Your task to perform on an android device: open app "Cash App" (install if not already installed) Image 0: 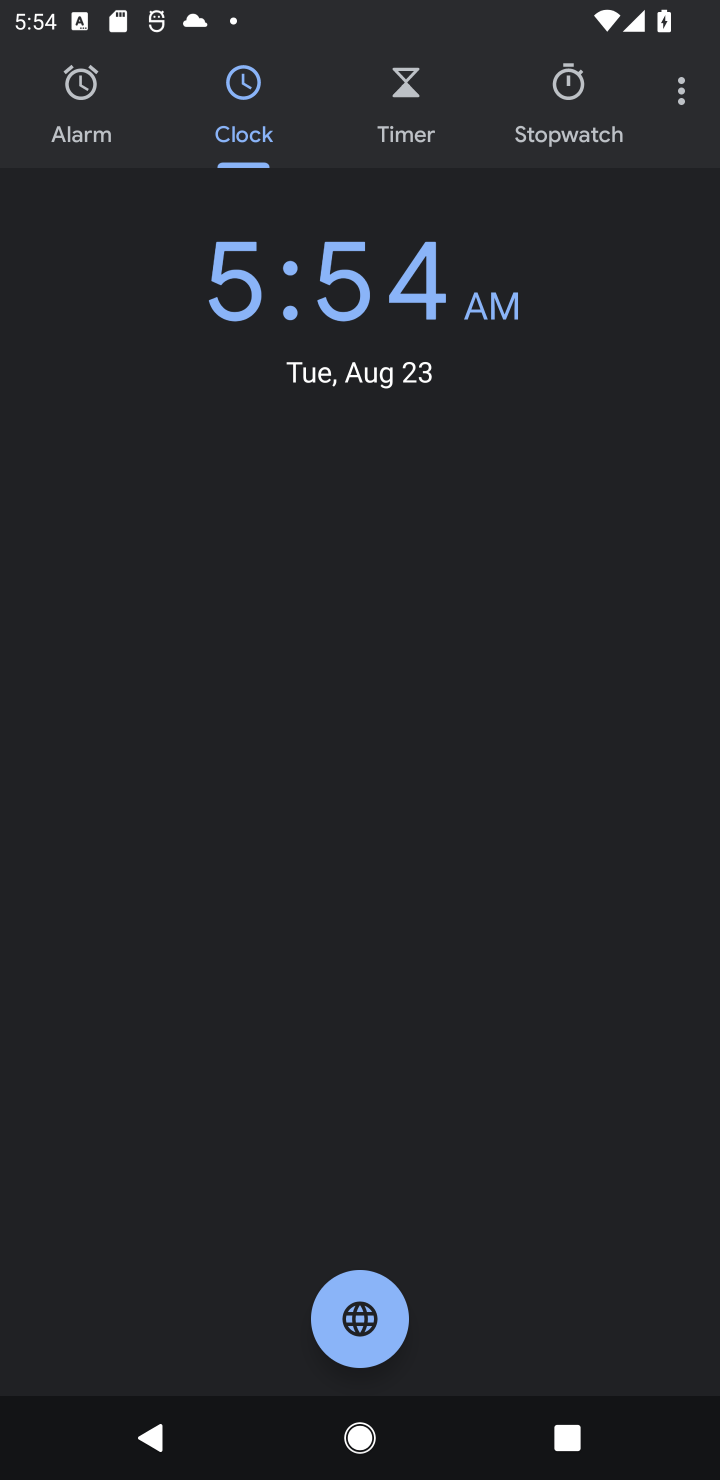
Step 0: press home button
Your task to perform on an android device: open app "Cash App" (install if not already installed) Image 1: 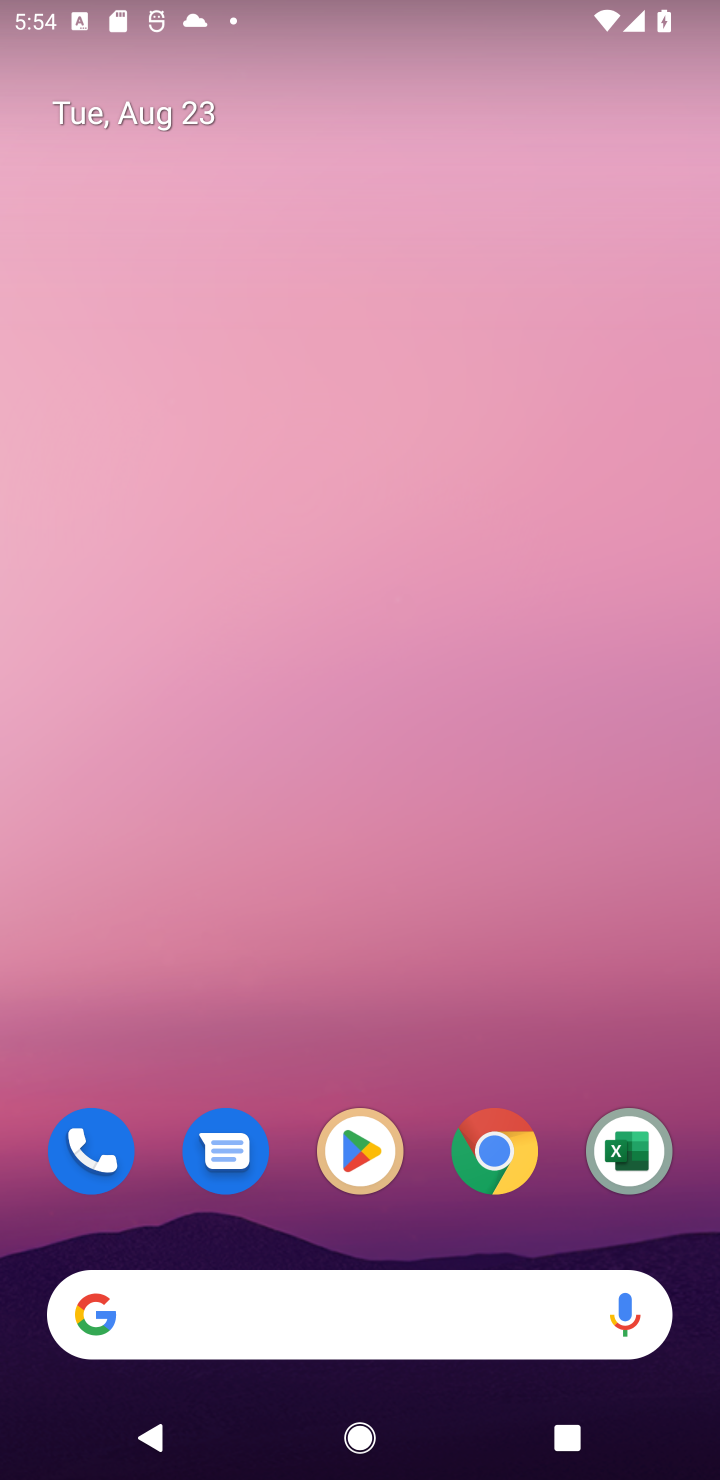
Step 1: click (371, 1155)
Your task to perform on an android device: open app "Cash App" (install if not already installed) Image 2: 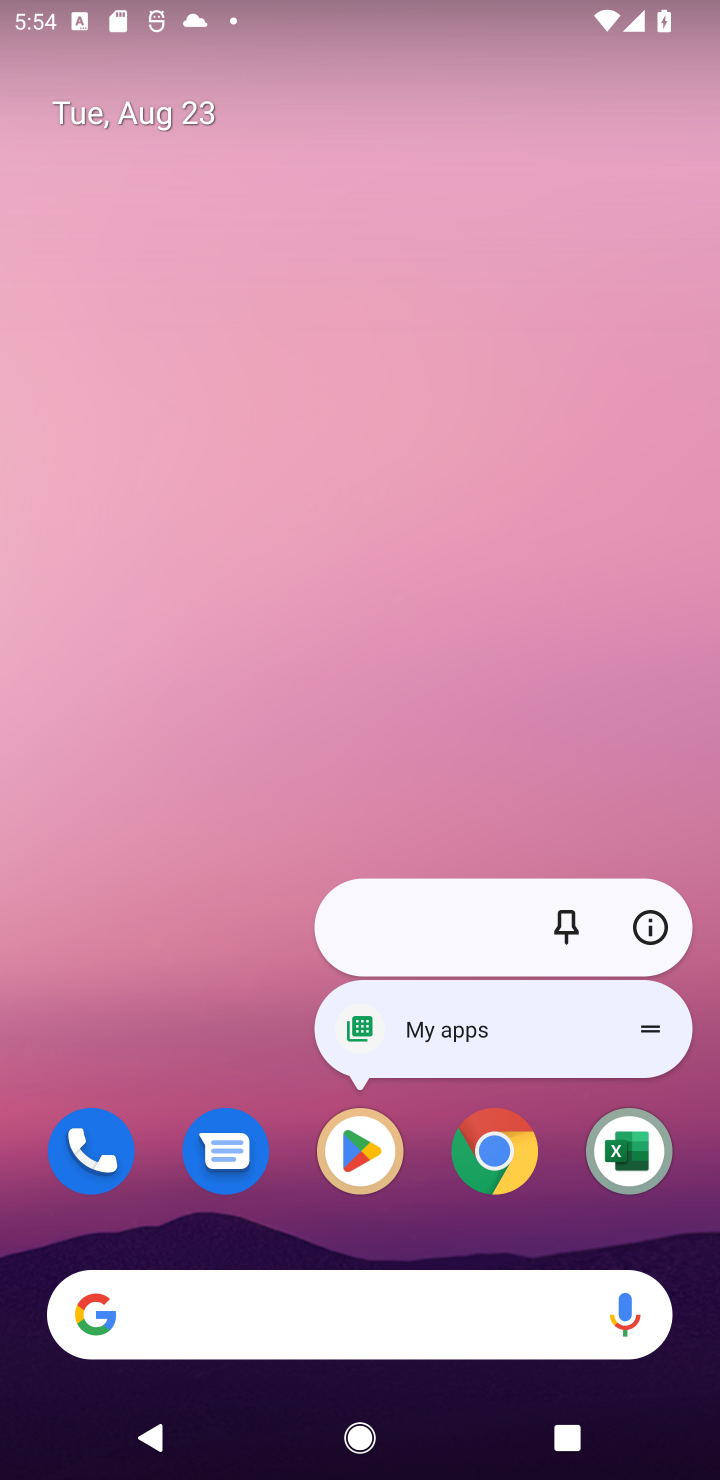
Step 2: click (371, 1164)
Your task to perform on an android device: open app "Cash App" (install if not already installed) Image 3: 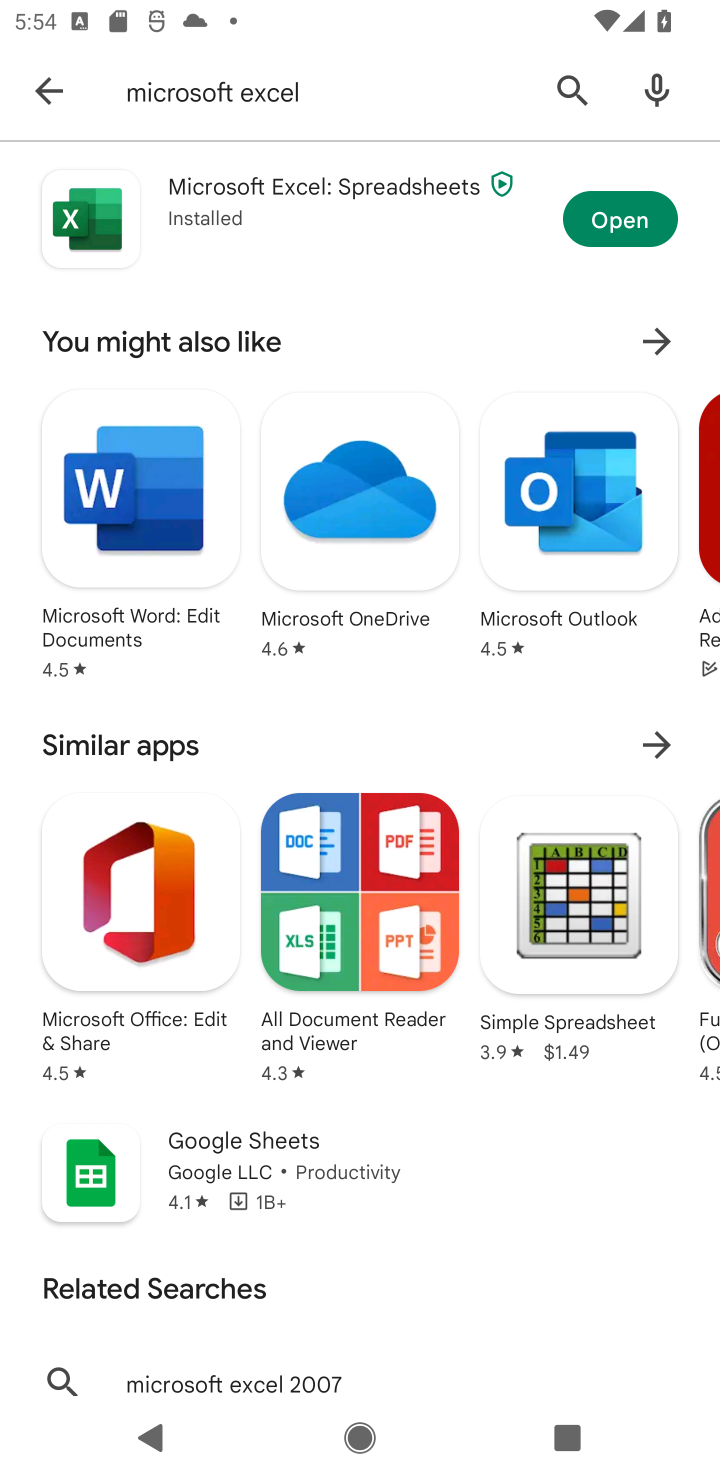
Step 3: click (569, 73)
Your task to perform on an android device: open app "Cash App" (install if not already installed) Image 4: 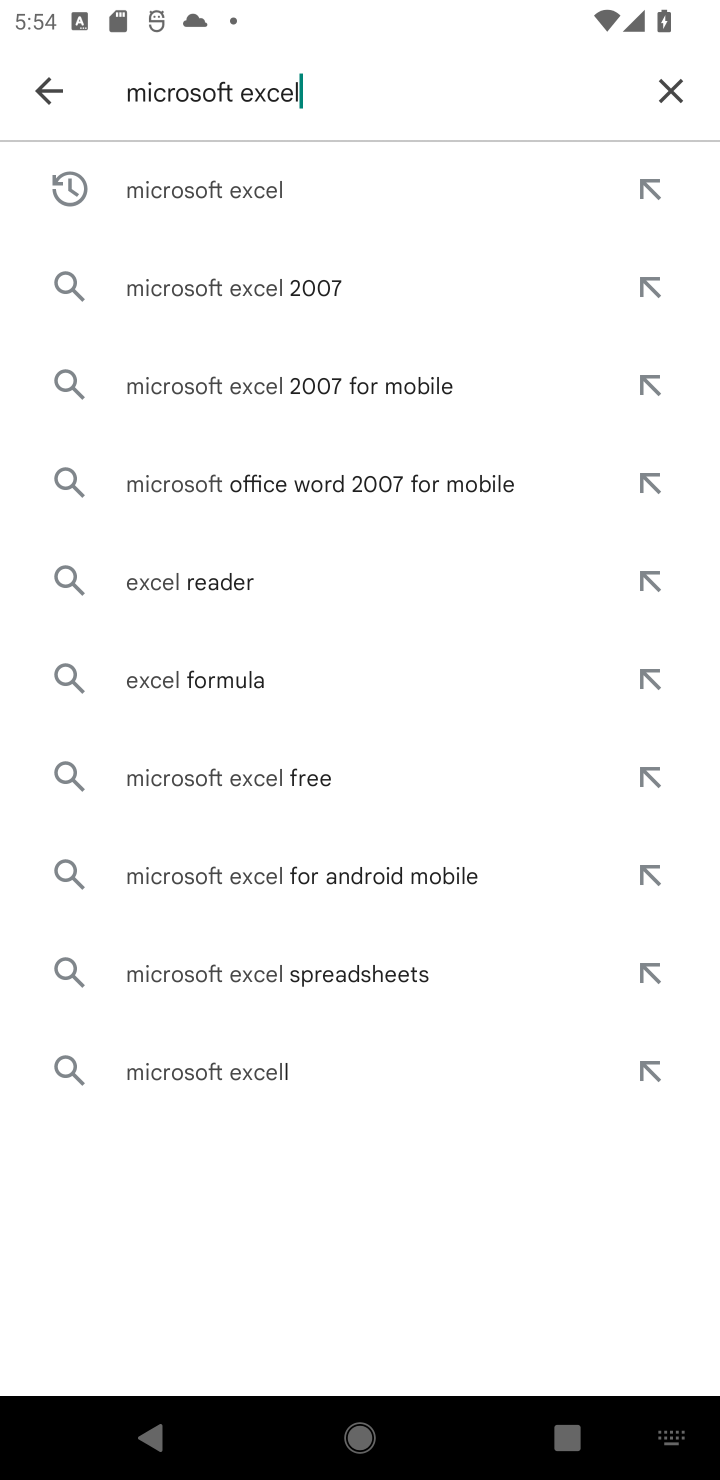
Step 4: click (674, 81)
Your task to perform on an android device: open app "Cash App" (install if not already installed) Image 5: 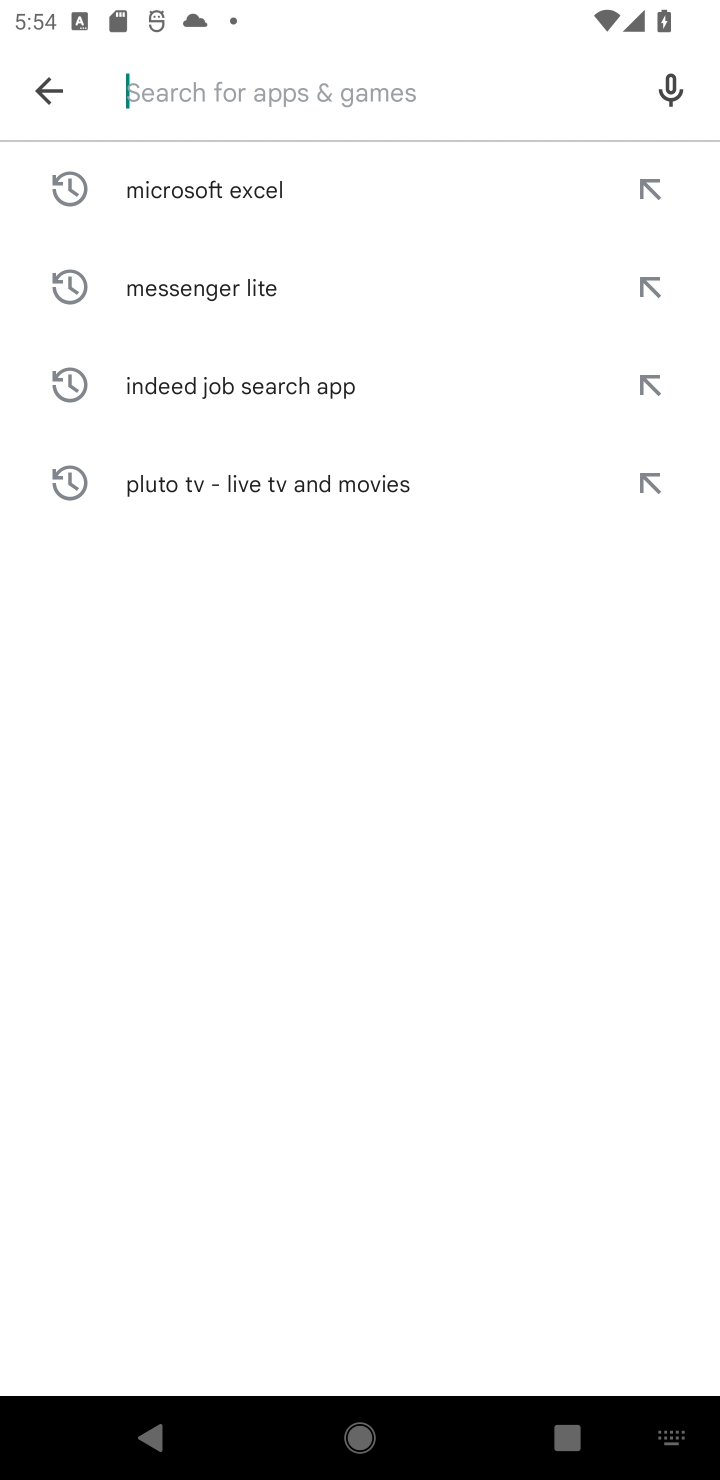
Step 5: type "Cash App"
Your task to perform on an android device: open app "Cash App" (install if not already installed) Image 6: 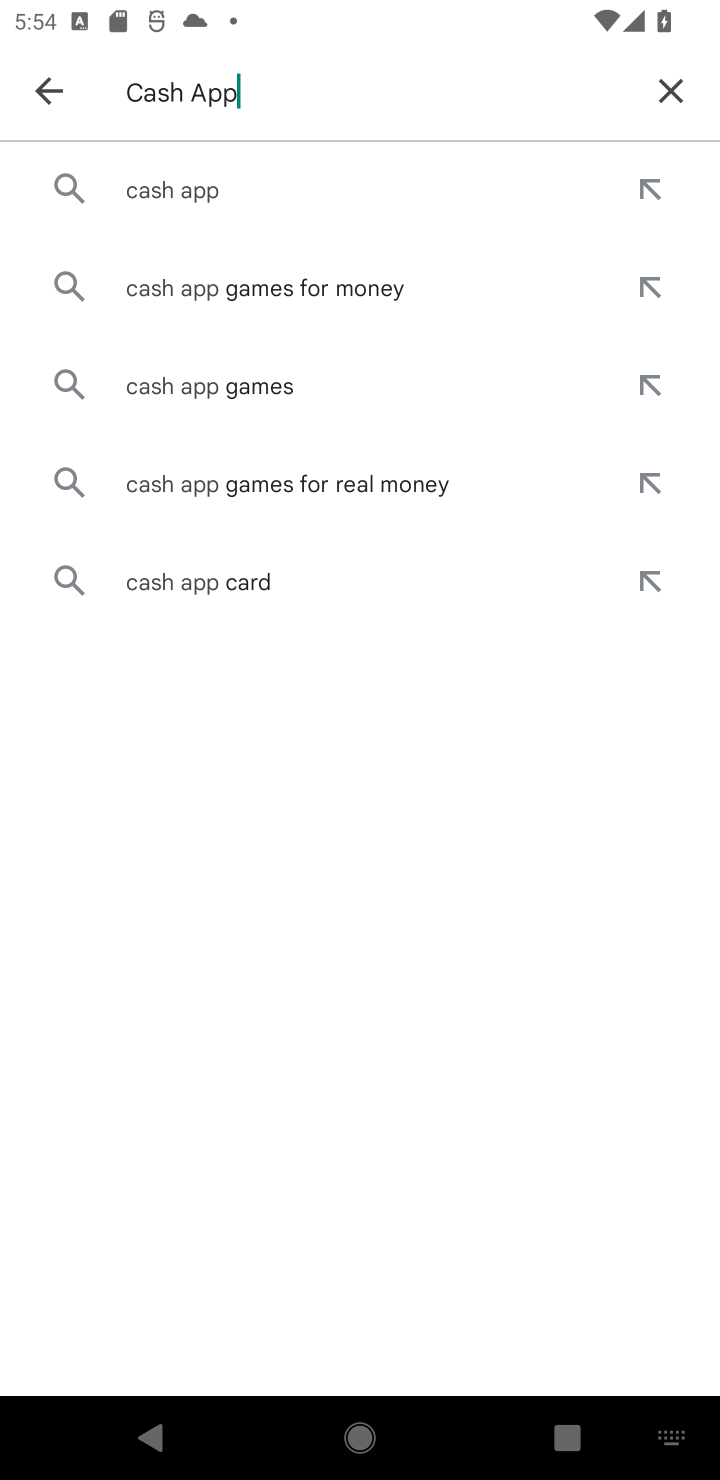
Step 6: click (194, 190)
Your task to perform on an android device: open app "Cash App" (install if not already installed) Image 7: 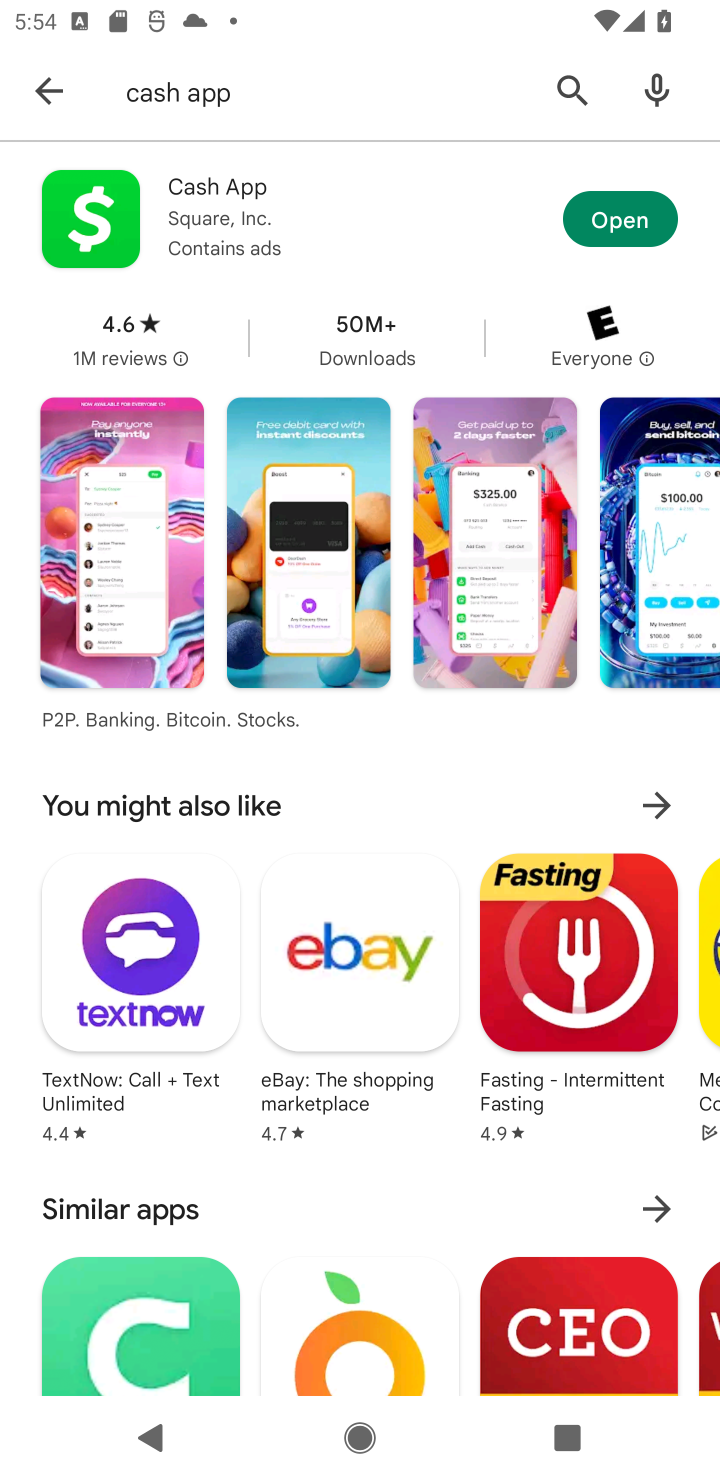
Step 7: click (608, 221)
Your task to perform on an android device: open app "Cash App" (install if not already installed) Image 8: 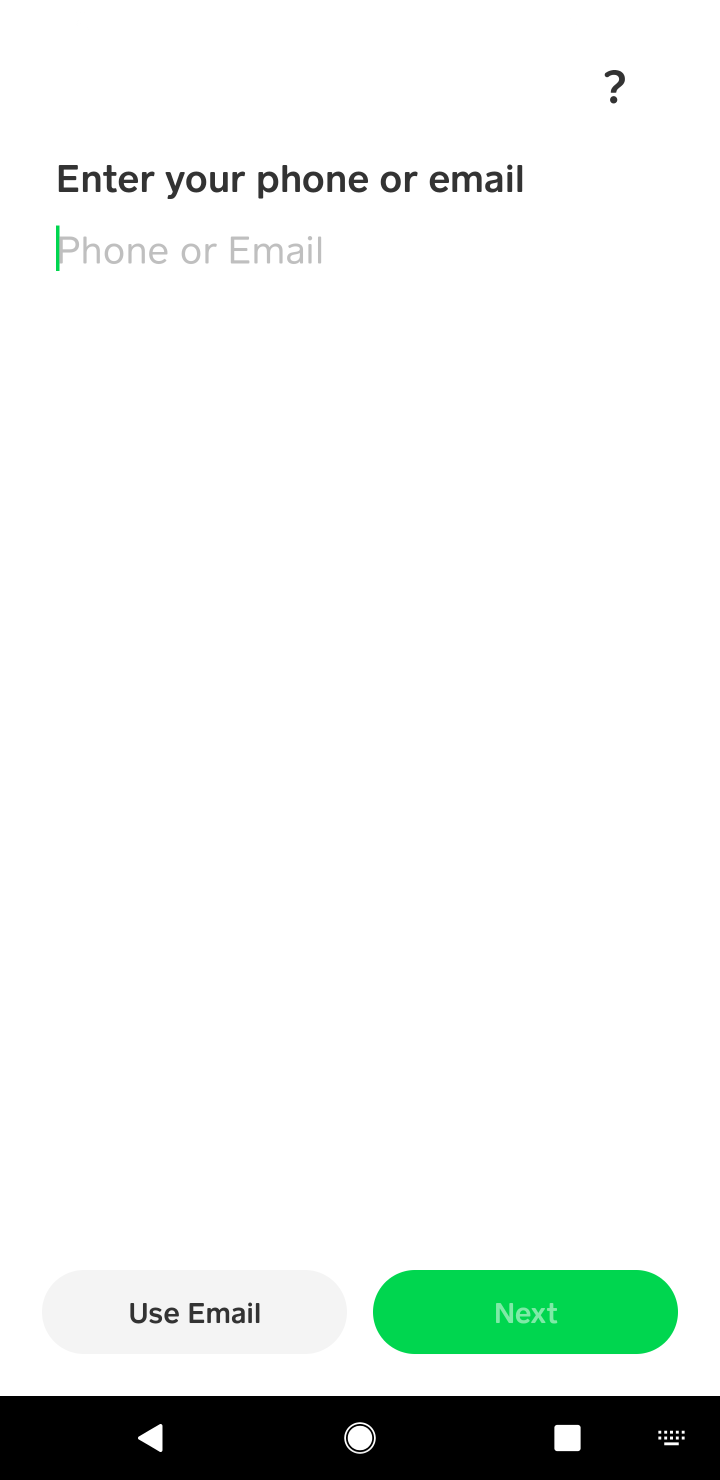
Step 8: task complete